Your task to perform on an android device: open a new tab in the chrome app Image 0: 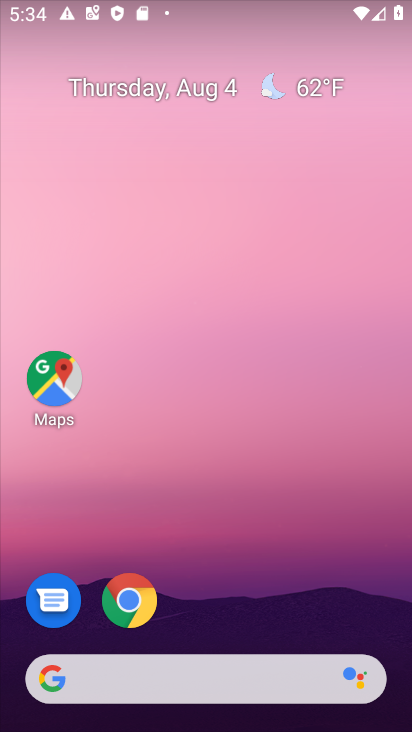
Step 0: click (137, 606)
Your task to perform on an android device: open a new tab in the chrome app Image 1: 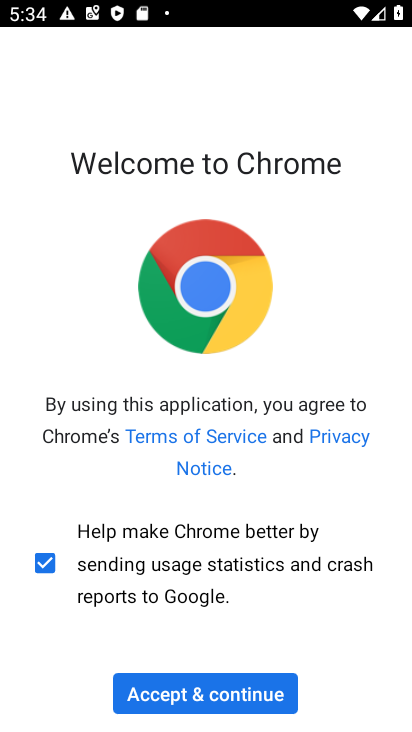
Step 1: click (187, 709)
Your task to perform on an android device: open a new tab in the chrome app Image 2: 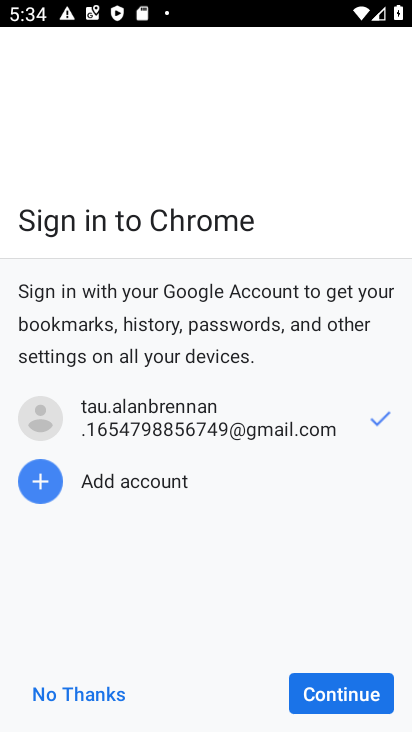
Step 2: click (334, 686)
Your task to perform on an android device: open a new tab in the chrome app Image 3: 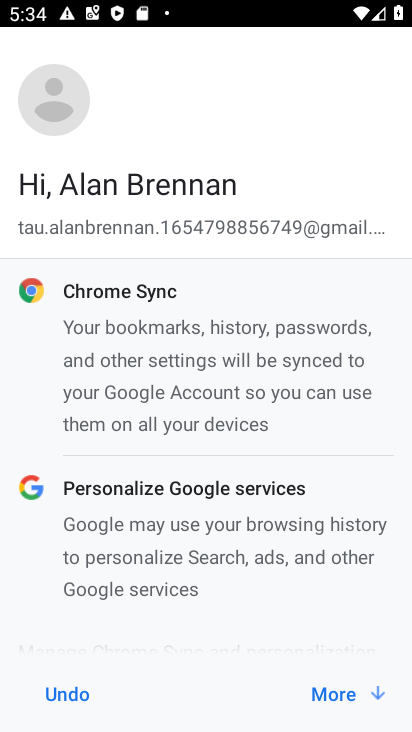
Step 3: click (341, 699)
Your task to perform on an android device: open a new tab in the chrome app Image 4: 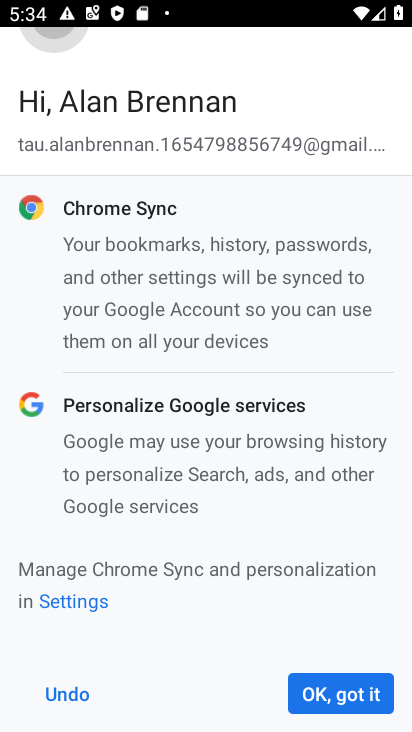
Step 4: click (308, 690)
Your task to perform on an android device: open a new tab in the chrome app Image 5: 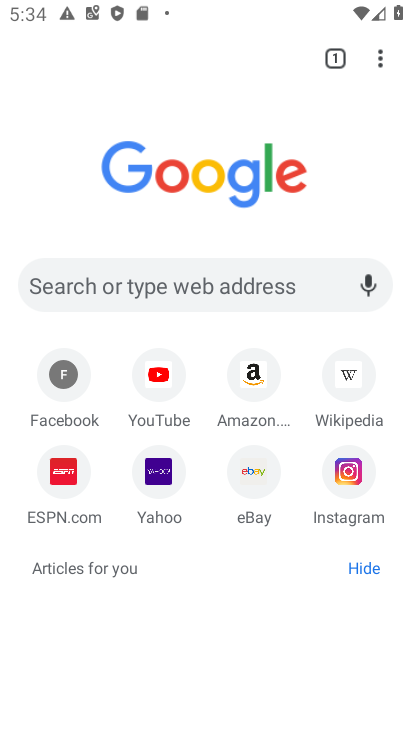
Step 5: task complete